Your task to perform on an android device: Go to Google maps Image 0: 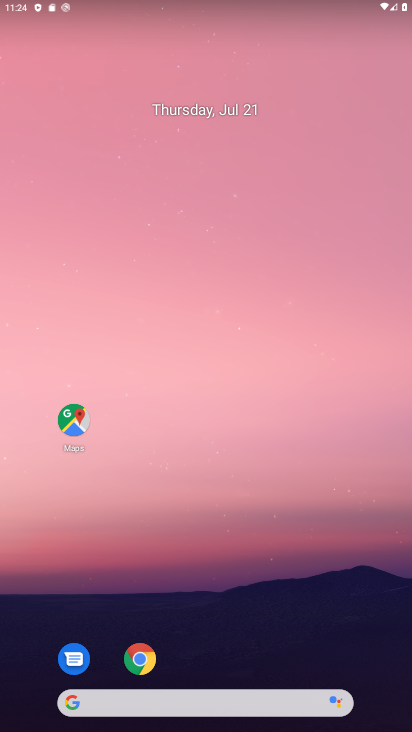
Step 0: click (84, 412)
Your task to perform on an android device: Go to Google maps Image 1: 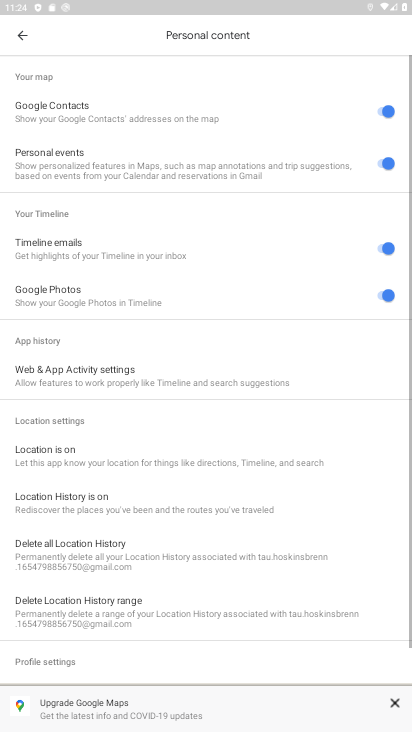
Step 1: click (18, 29)
Your task to perform on an android device: Go to Google maps Image 2: 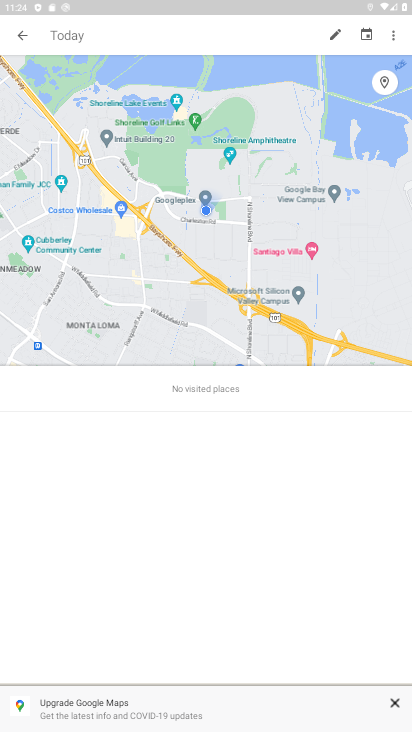
Step 2: click (18, 29)
Your task to perform on an android device: Go to Google maps Image 3: 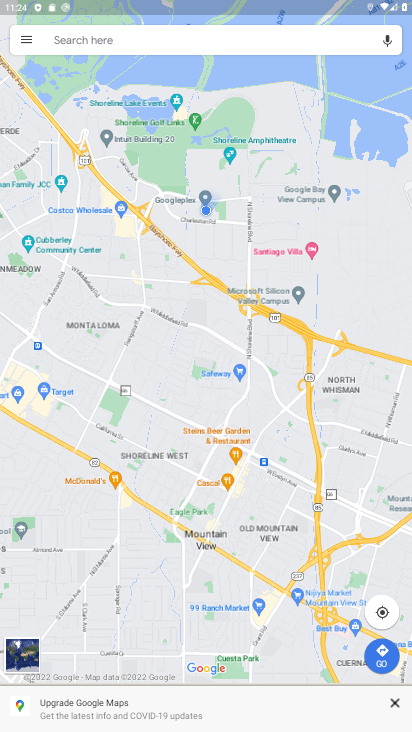
Step 3: task complete